Your task to perform on an android device: turn off translation in the chrome app Image 0: 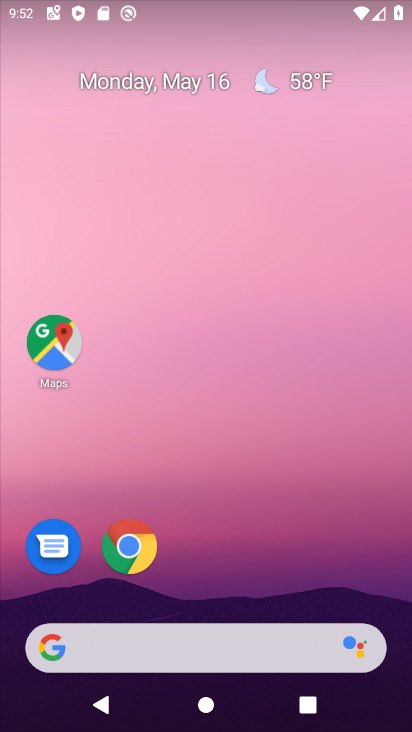
Step 0: click (132, 540)
Your task to perform on an android device: turn off translation in the chrome app Image 1: 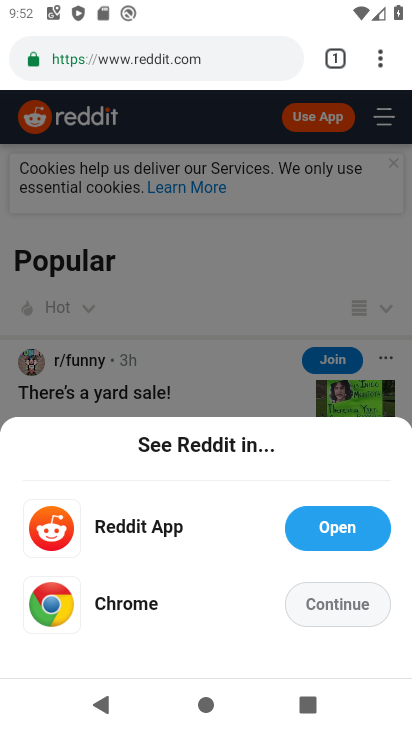
Step 1: click (383, 54)
Your task to perform on an android device: turn off translation in the chrome app Image 2: 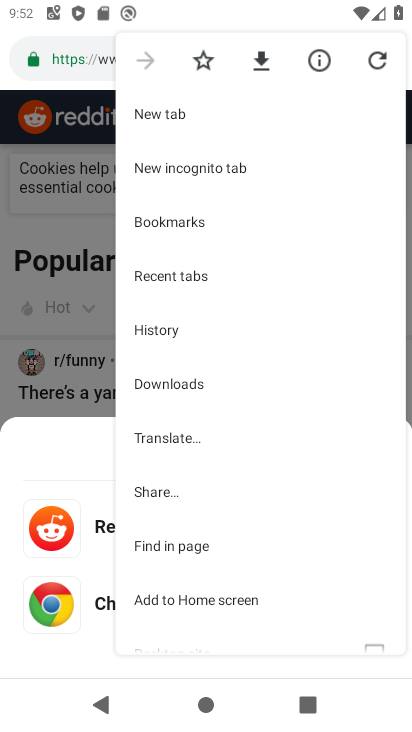
Step 2: drag from (218, 503) to (248, 382)
Your task to perform on an android device: turn off translation in the chrome app Image 3: 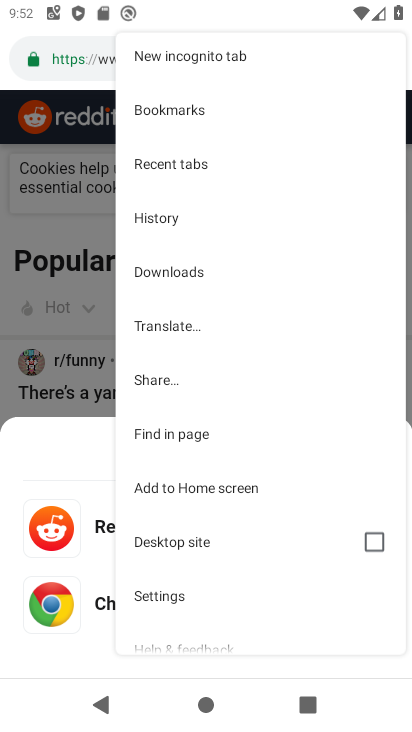
Step 3: drag from (197, 556) to (255, 459)
Your task to perform on an android device: turn off translation in the chrome app Image 4: 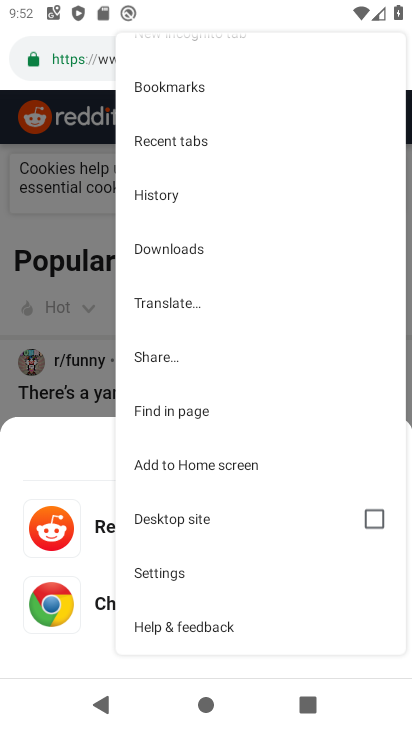
Step 4: click (167, 579)
Your task to perform on an android device: turn off translation in the chrome app Image 5: 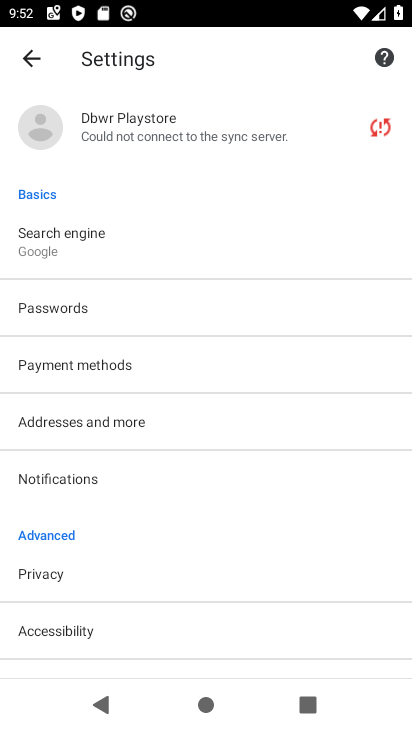
Step 5: drag from (90, 564) to (128, 483)
Your task to perform on an android device: turn off translation in the chrome app Image 6: 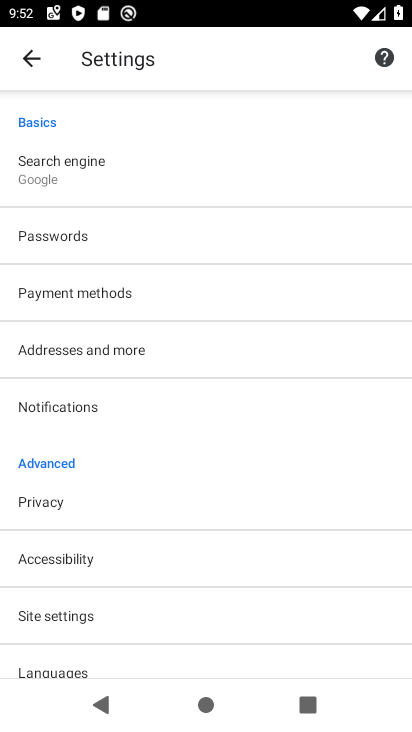
Step 6: drag from (71, 596) to (155, 494)
Your task to perform on an android device: turn off translation in the chrome app Image 7: 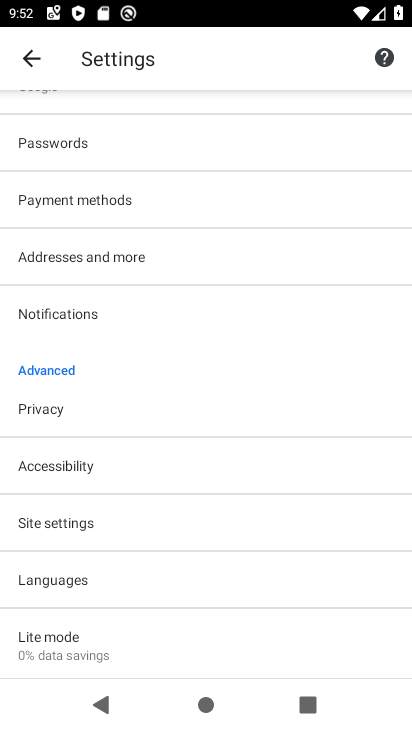
Step 7: click (74, 589)
Your task to perform on an android device: turn off translation in the chrome app Image 8: 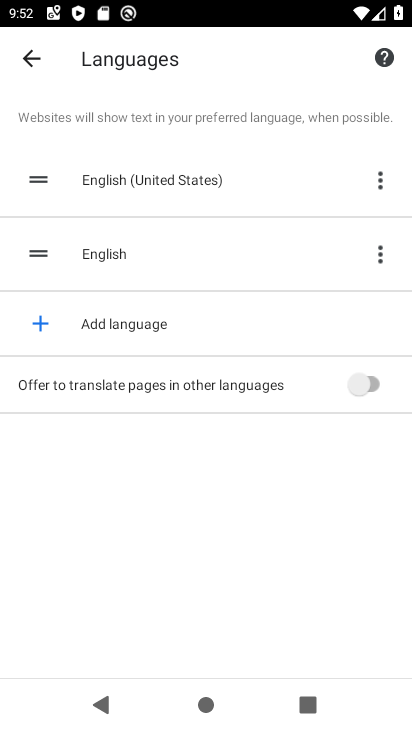
Step 8: task complete